Your task to perform on an android device: turn off sleep mode Image 0: 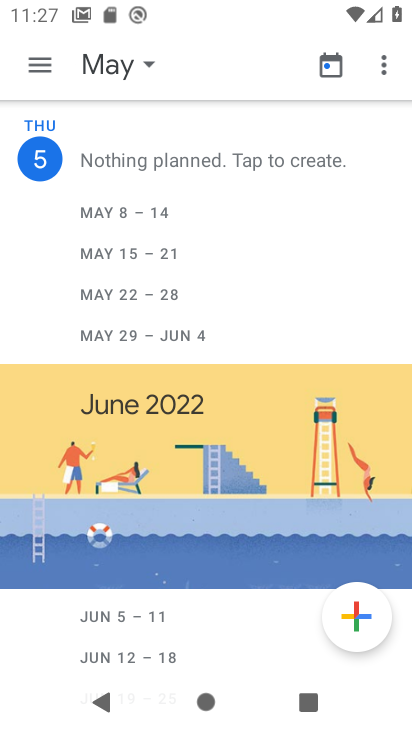
Step 0: press home button
Your task to perform on an android device: turn off sleep mode Image 1: 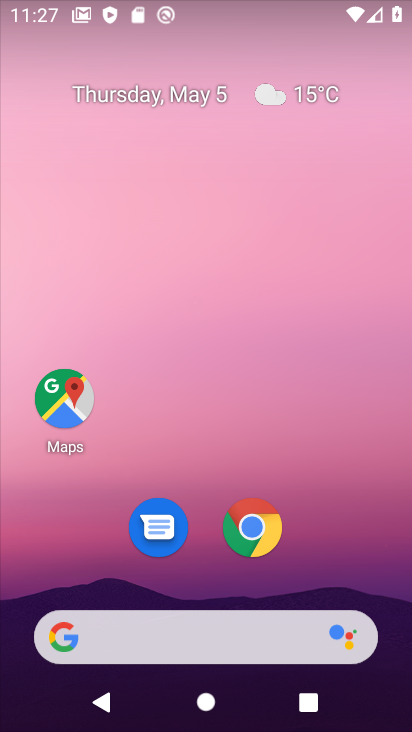
Step 1: drag from (103, 559) to (204, 69)
Your task to perform on an android device: turn off sleep mode Image 2: 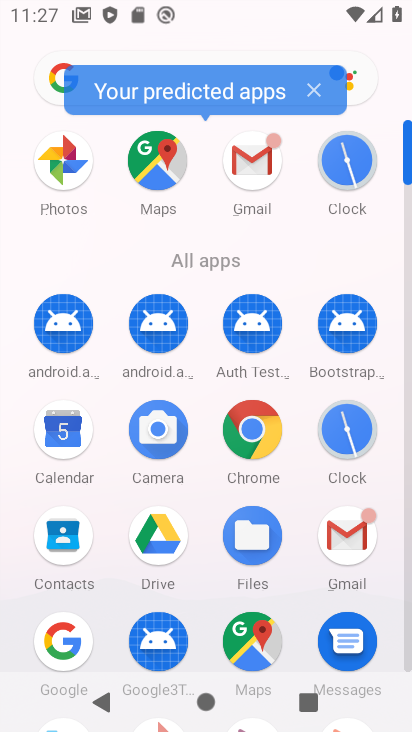
Step 2: drag from (173, 633) to (302, 258)
Your task to perform on an android device: turn off sleep mode Image 3: 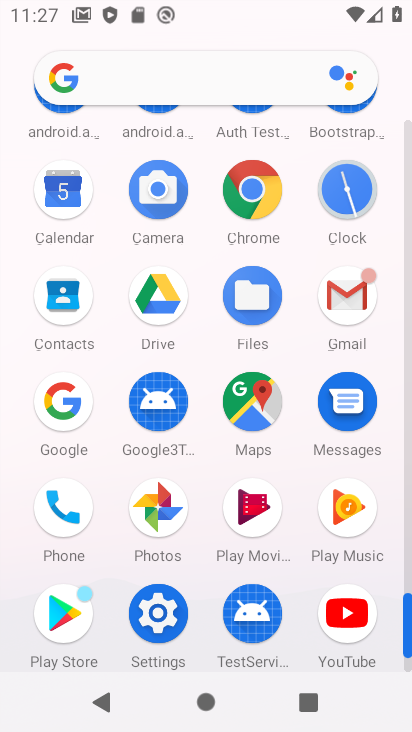
Step 3: click (165, 613)
Your task to perform on an android device: turn off sleep mode Image 4: 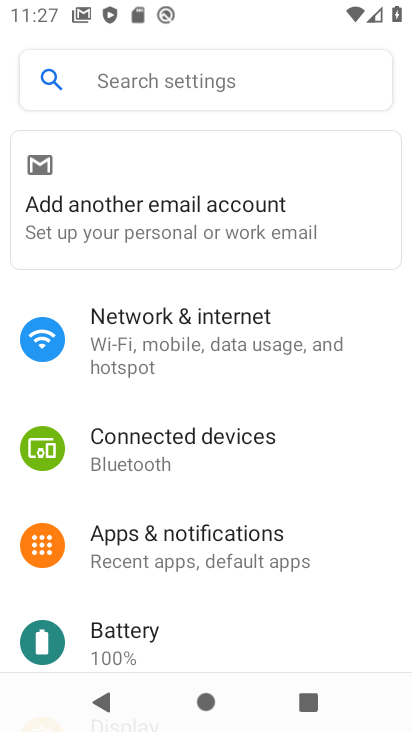
Step 4: drag from (170, 620) to (303, 185)
Your task to perform on an android device: turn off sleep mode Image 5: 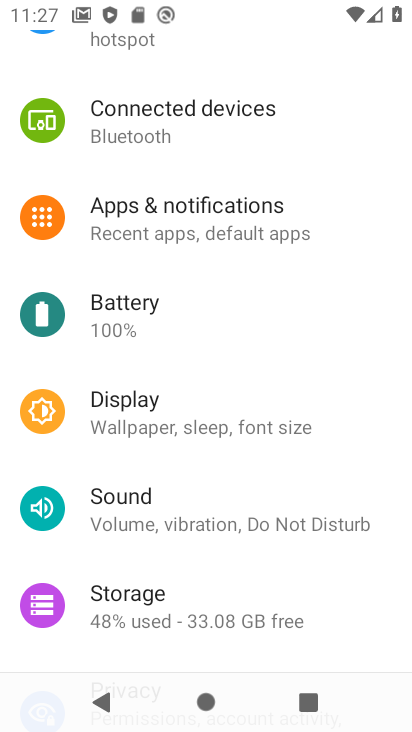
Step 5: click (202, 431)
Your task to perform on an android device: turn off sleep mode Image 6: 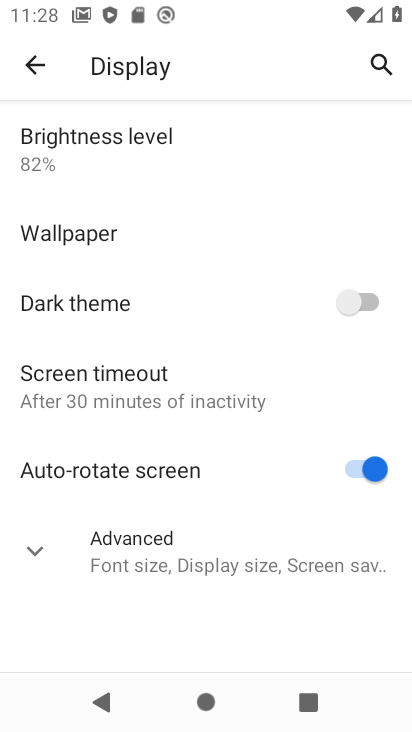
Step 6: click (187, 565)
Your task to perform on an android device: turn off sleep mode Image 7: 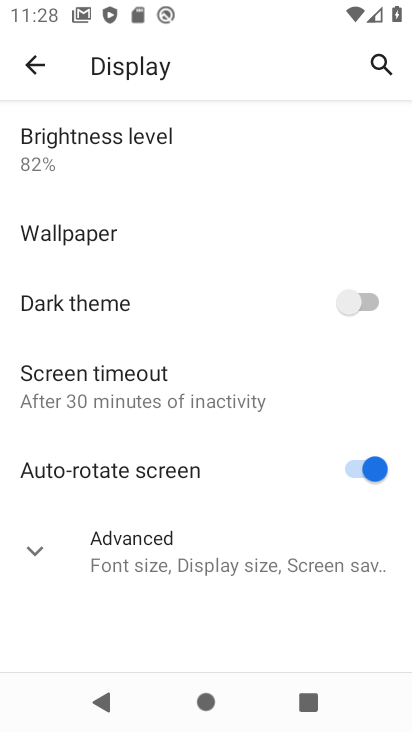
Step 7: click (203, 568)
Your task to perform on an android device: turn off sleep mode Image 8: 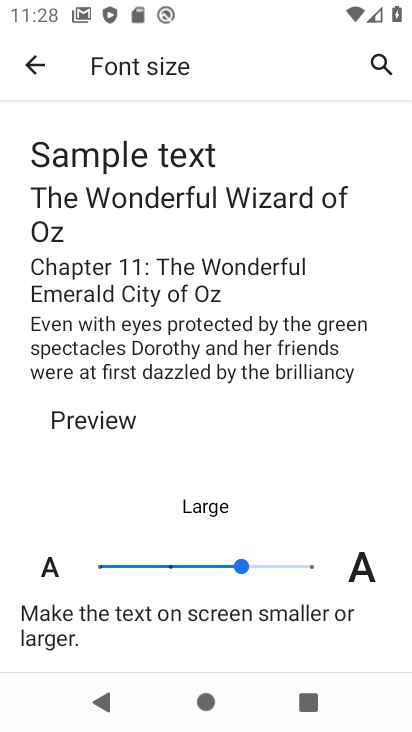
Step 8: task complete